Your task to perform on an android device: When is my next appointment? Image 0: 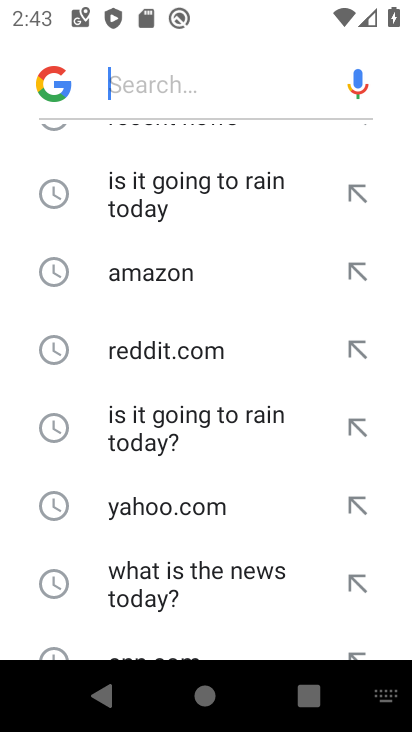
Step 0: press home button
Your task to perform on an android device: When is my next appointment? Image 1: 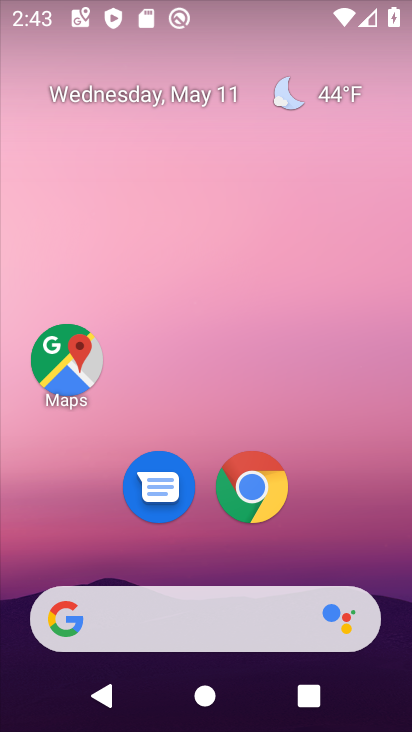
Step 1: drag from (160, 532) to (245, 4)
Your task to perform on an android device: When is my next appointment? Image 2: 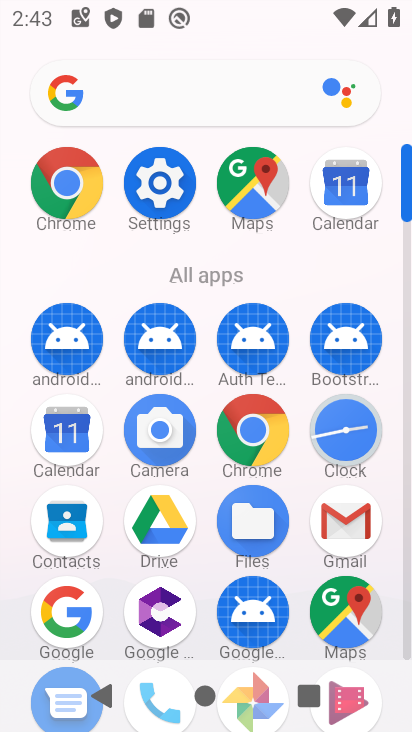
Step 2: click (66, 435)
Your task to perform on an android device: When is my next appointment? Image 3: 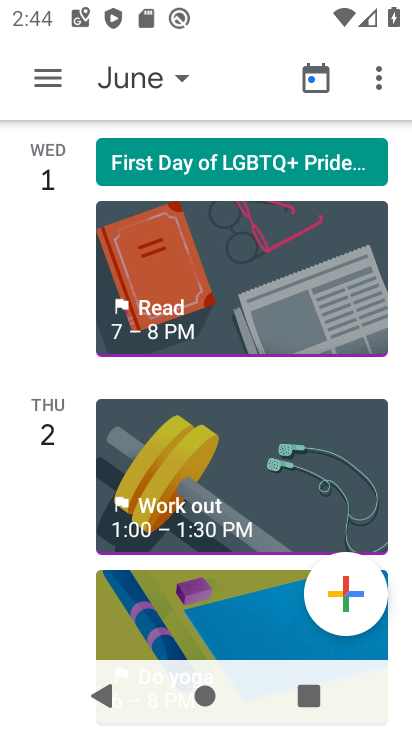
Step 3: click (166, 77)
Your task to perform on an android device: When is my next appointment? Image 4: 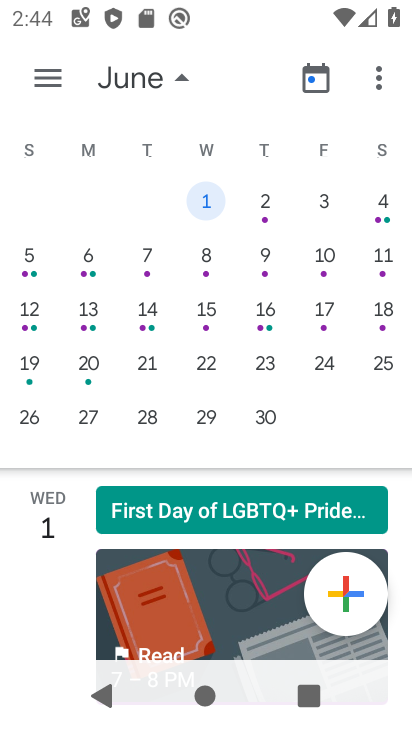
Step 4: drag from (43, 308) to (409, 285)
Your task to perform on an android device: When is my next appointment? Image 5: 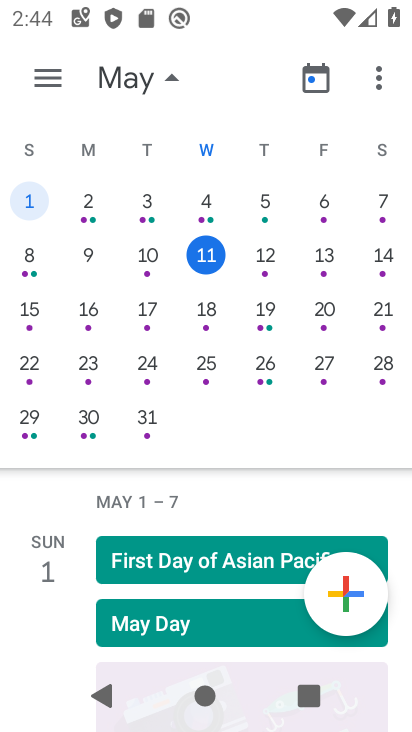
Step 5: click (207, 259)
Your task to perform on an android device: When is my next appointment? Image 6: 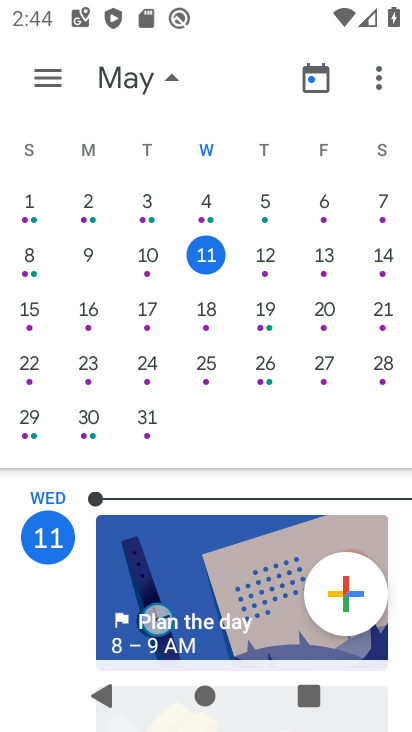
Step 6: task complete